Your task to perform on an android device: change keyboard looks Image 0: 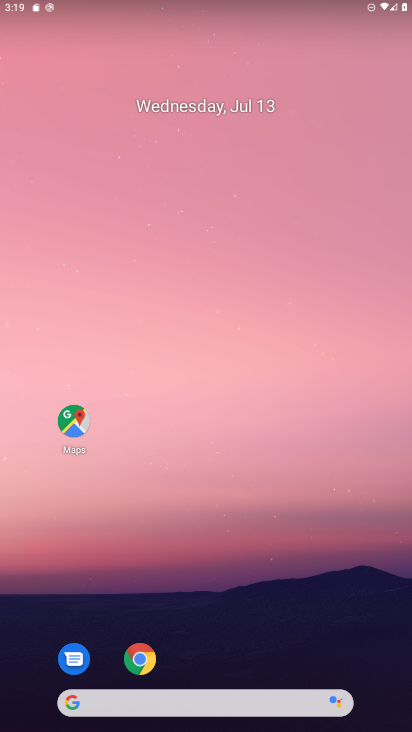
Step 0: drag from (360, 660) to (301, 133)
Your task to perform on an android device: change keyboard looks Image 1: 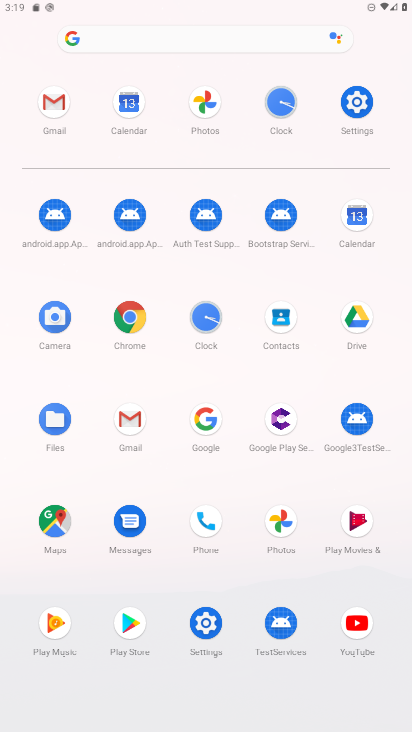
Step 1: click (208, 623)
Your task to perform on an android device: change keyboard looks Image 2: 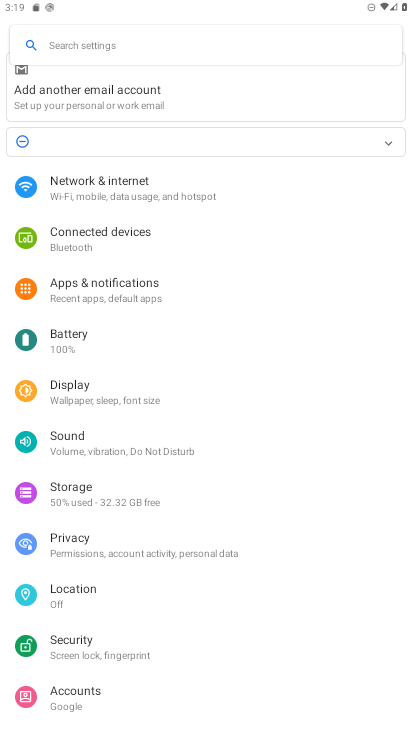
Step 2: drag from (240, 718) to (221, 335)
Your task to perform on an android device: change keyboard looks Image 3: 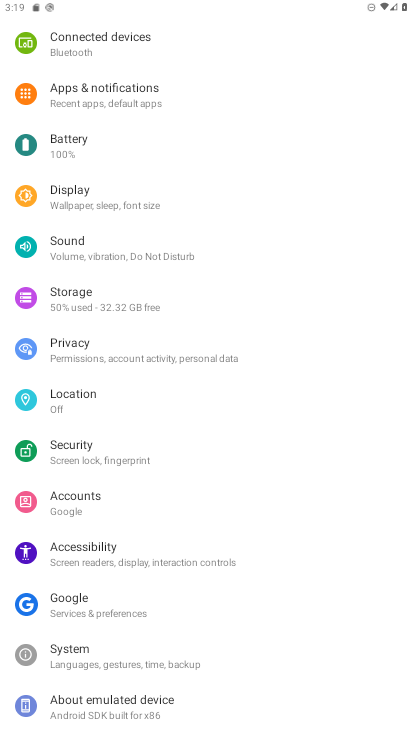
Step 3: click (85, 654)
Your task to perform on an android device: change keyboard looks Image 4: 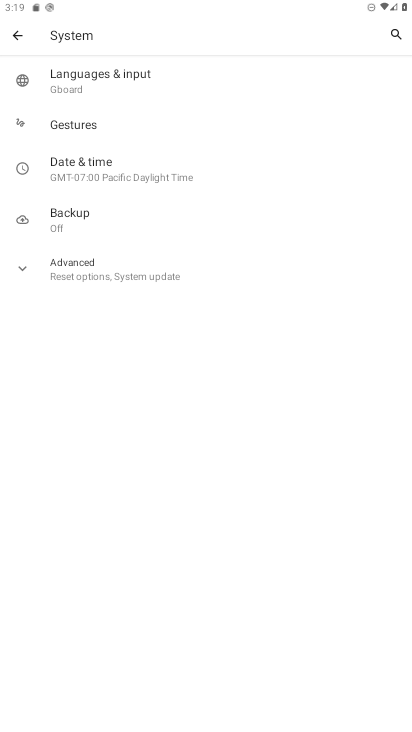
Step 4: click (94, 86)
Your task to perform on an android device: change keyboard looks Image 5: 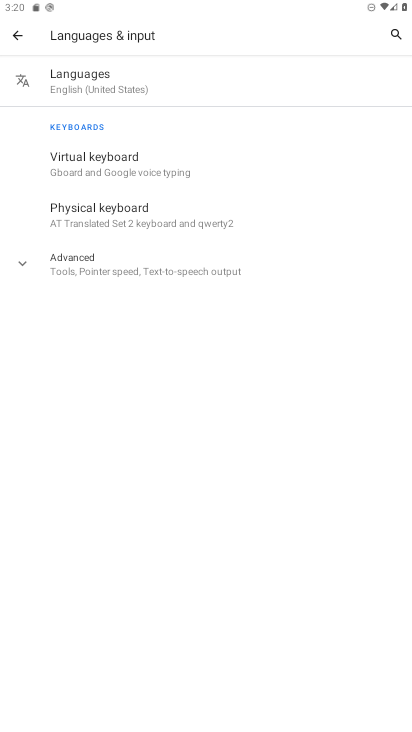
Step 5: click (97, 209)
Your task to perform on an android device: change keyboard looks Image 6: 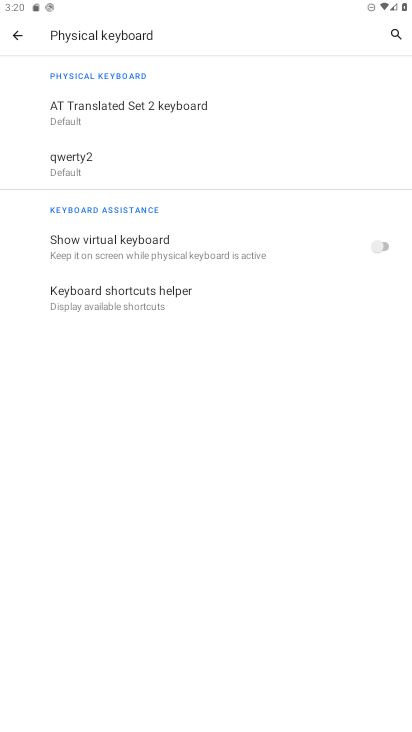
Step 6: click (68, 162)
Your task to perform on an android device: change keyboard looks Image 7: 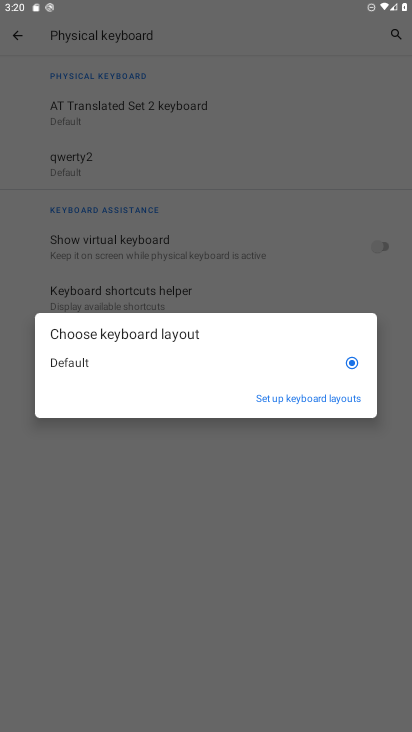
Step 7: click (321, 398)
Your task to perform on an android device: change keyboard looks Image 8: 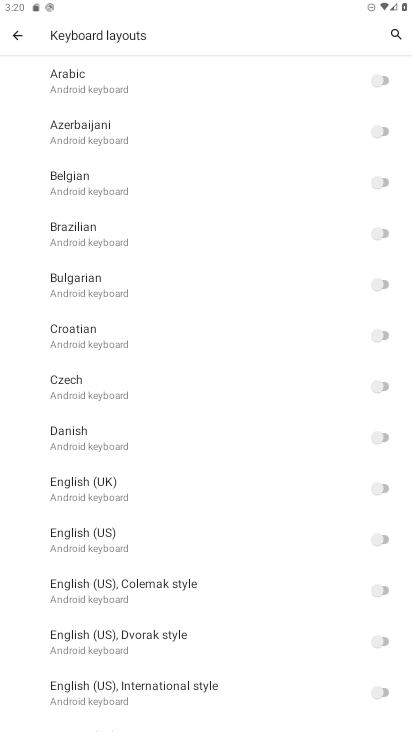
Step 8: click (383, 536)
Your task to perform on an android device: change keyboard looks Image 9: 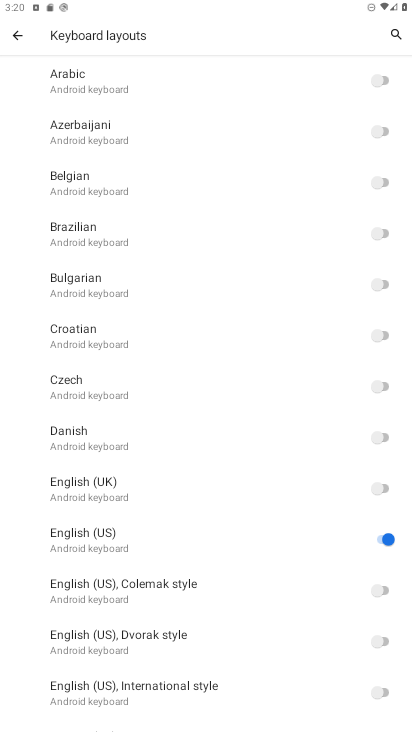
Step 9: task complete